Your task to perform on an android device: Go to privacy settings Image 0: 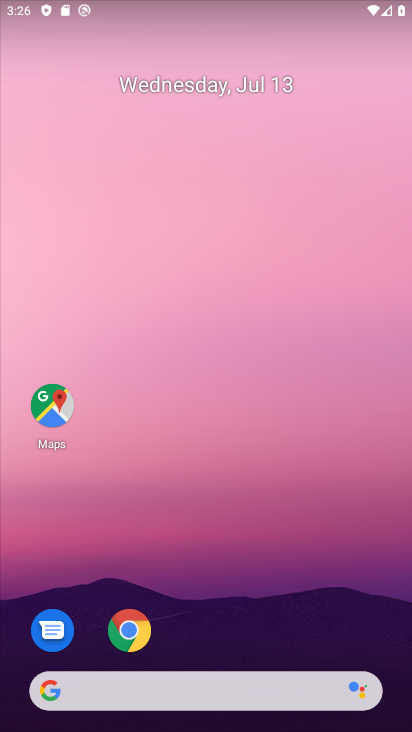
Step 0: drag from (243, 570) to (198, 45)
Your task to perform on an android device: Go to privacy settings Image 1: 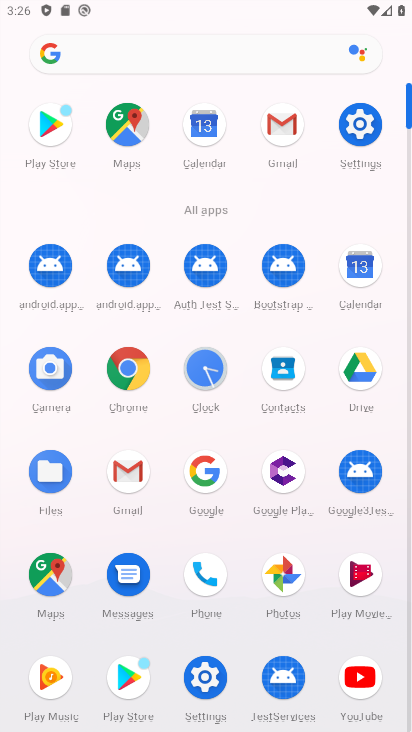
Step 1: click (360, 126)
Your task to perform on an android device: Go to privacy settings Image 2: 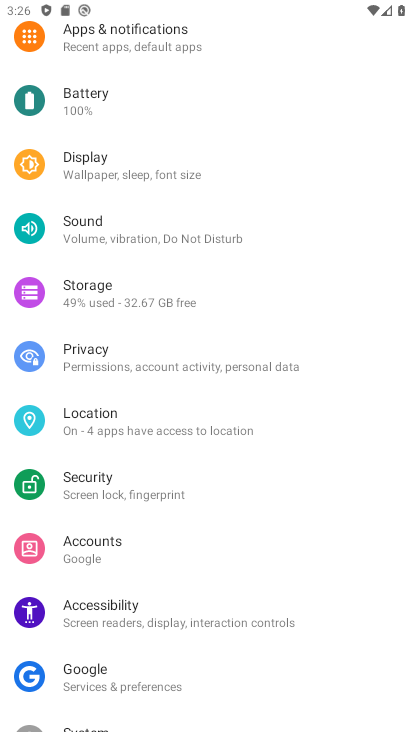
Step 2: click (88, 352)
Your task to perform on an android device: Go to privacy settings Image 3: 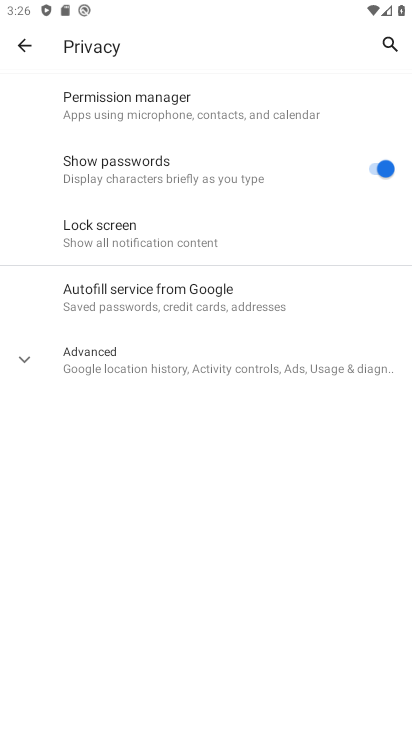
Step 3: task complete